Your task to perform on an android device: Set the phone to "Do not disturb". Image 0: 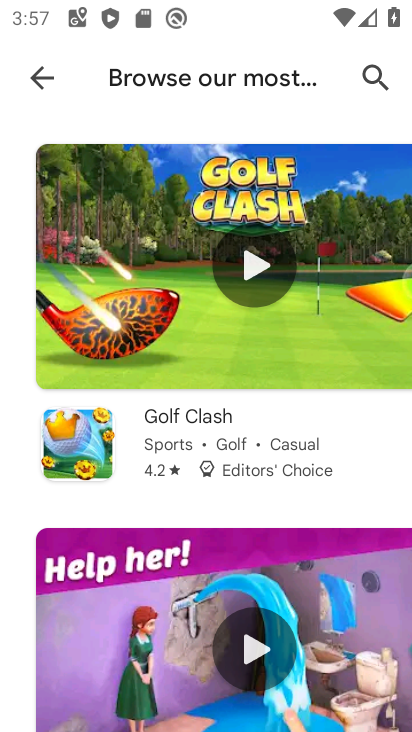
Step 0: press home button
Your task to perform on an android device: Set the phone to "Do not disturb". Image 1: 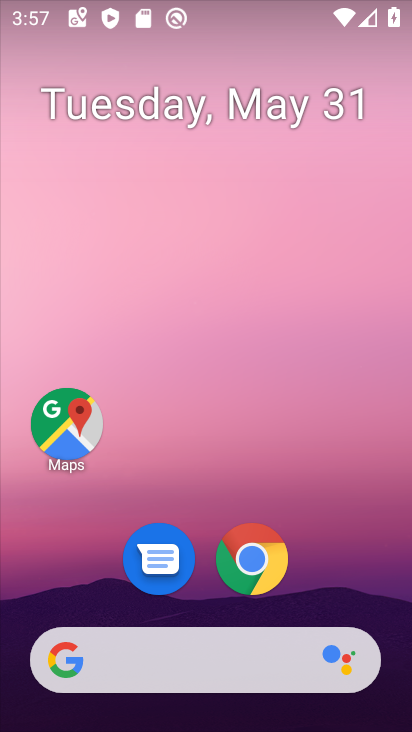
Step 1: drag from (220, 722) to (219, 173)
Your task to perform on an android device: Set the phone to "Do not disturb". Image 2: 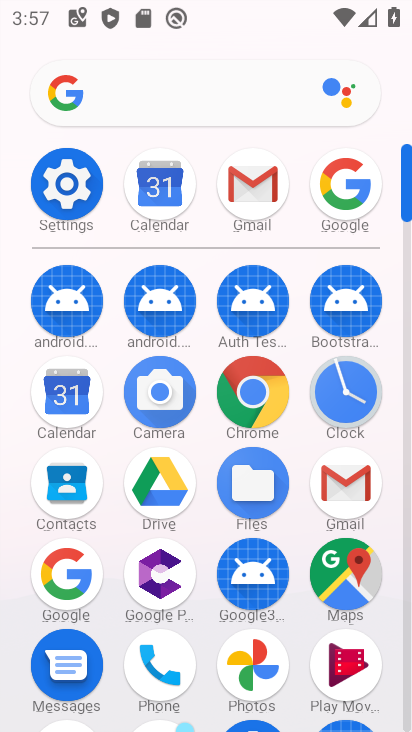
Step 2: click (51, 178)
Your task to perform on an android device: Set the phone to "Do not disturb". Image 3: 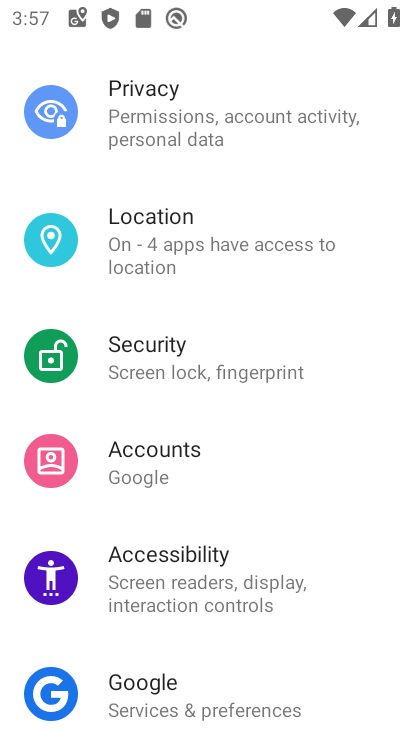
Step 3: drag from (226, 141) to (223, 532)
Your task to perform on an android device: Set the phone to "Do not disturb". Image 4: 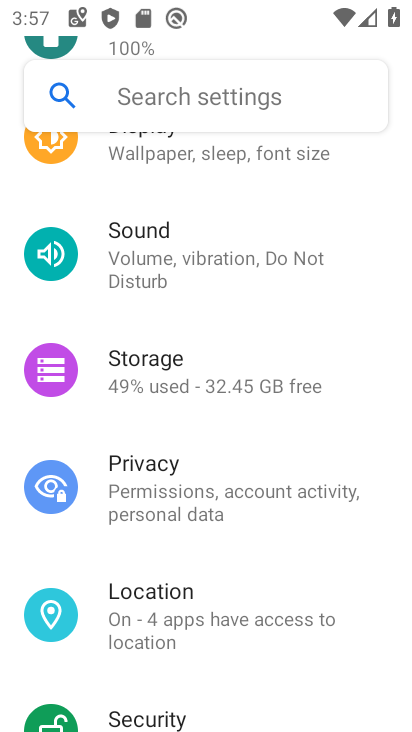
Step 4: click (223, 253)
Your task to perform on an android device: Set the phone to "Do not disturb". Image 5: 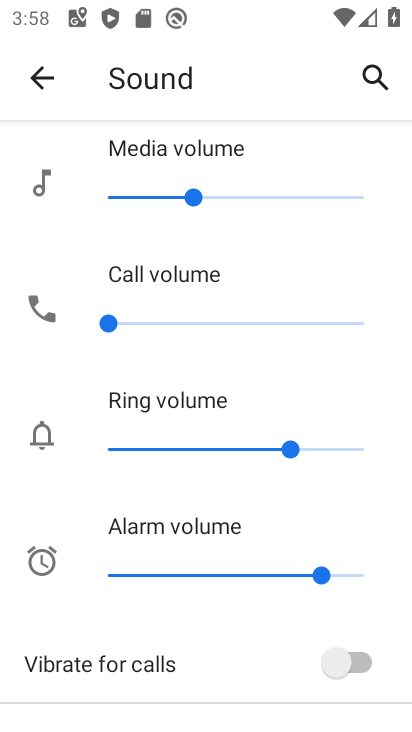
Step 5: drag from (182, 699) to (185, 281)
Your task to perform on an android device: Set the phone to "Do not disturb". Image 6: 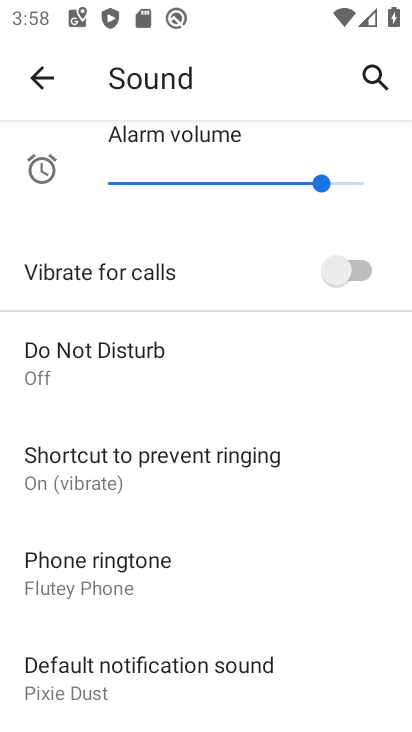
Step 6: click (68, 360)
Your task to perform on an android device: Set the phone to "Do not disturb". Image 7: 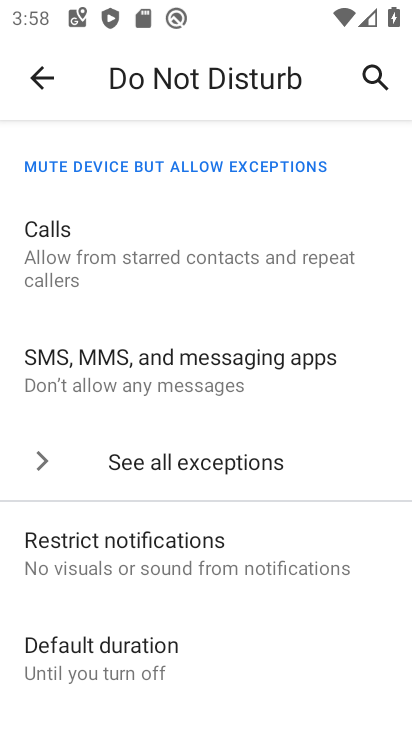
Step 7: drag from (248, 677) to (253, 241)
Your task to perform on an android device: Set the phone to "Do not disturb". Image 8: 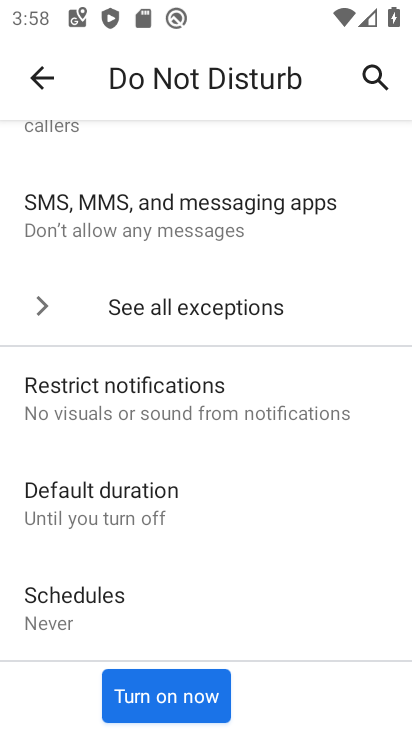
Step 8: click (183, 700)
Your task to perform on an android device: Set the phone to "Do not disturb". Image 9: 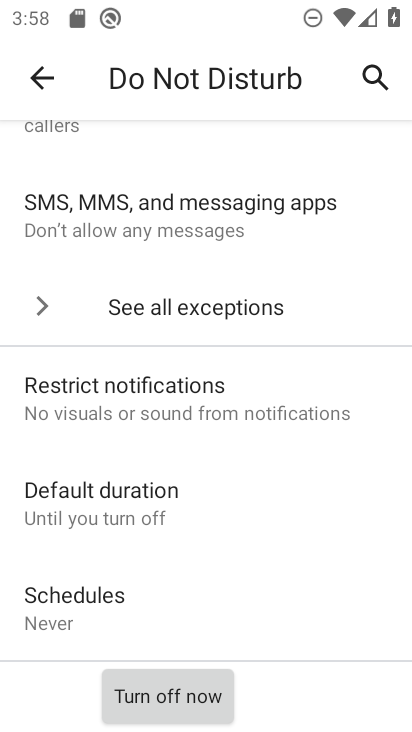
Step 9: task complete